Your task to perform on an android device: Open Google Image 0: 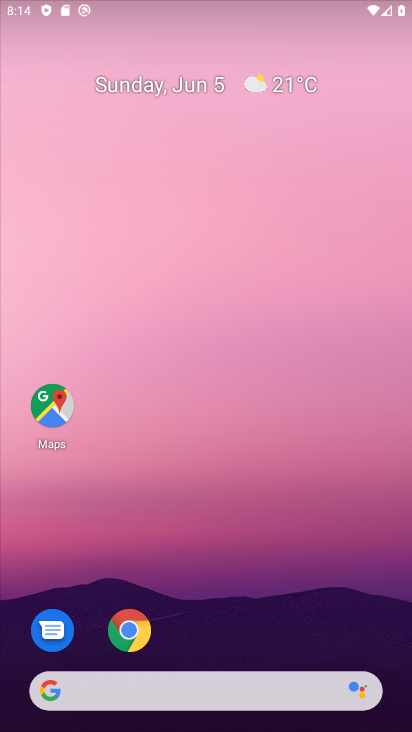
Step 0: drag from (372, 632) to (332, 240)
Your task to perform on an android device: Open Google Image 1: 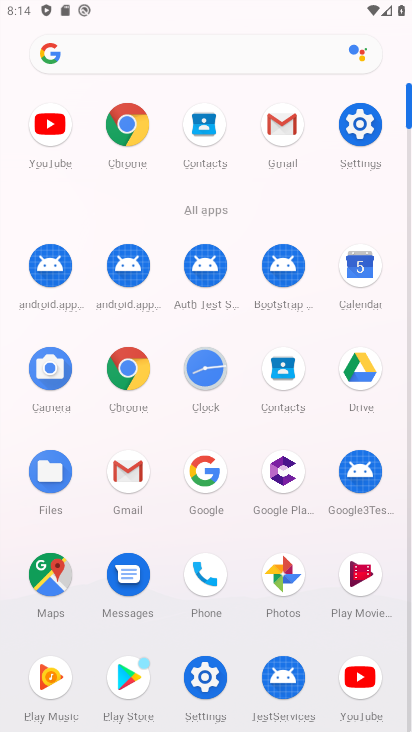
Step 1: click (204, 470)
Your task to perform on an android device: Open Google Image 2: 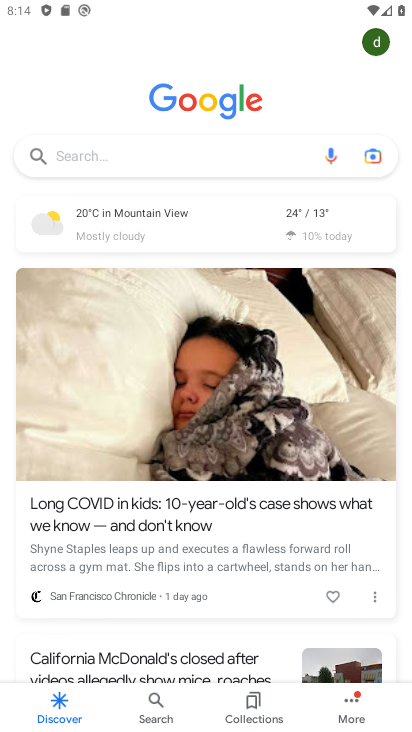
Step 2: task complete